Your task to perform on an android device: turn on the 12-hour format for clock Image 0: 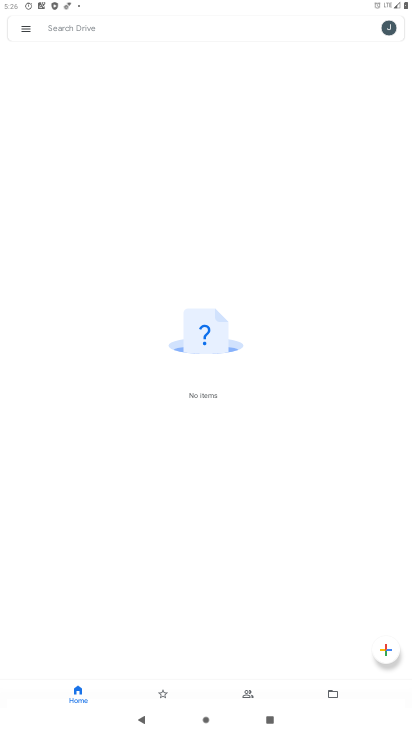
Step 0: press home button
Your task to perform on an android device: turn on the 12-hour format for clock Image 1: 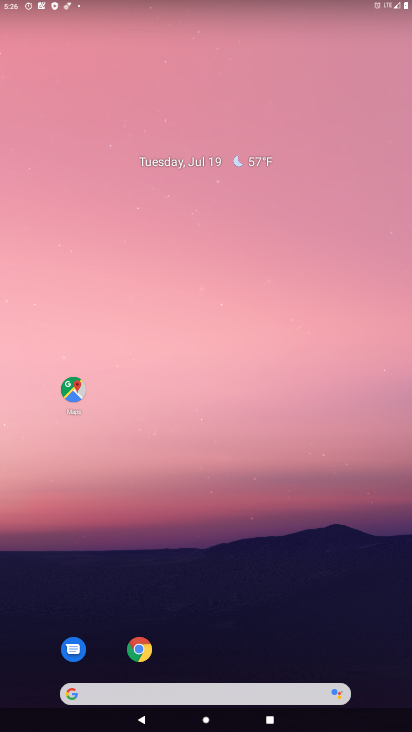
Step 1: drag from (198, 632) to (227, 127)
Your task to perform on an android device: turn on the 12-hour format for clock Image 2: 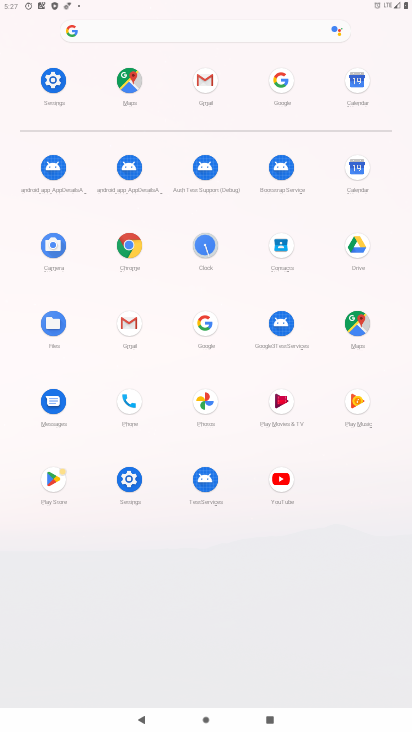
Step 2: click (211, 247)
Your task to perform on an android device: turn on the 12-hour format for clock Image 3: 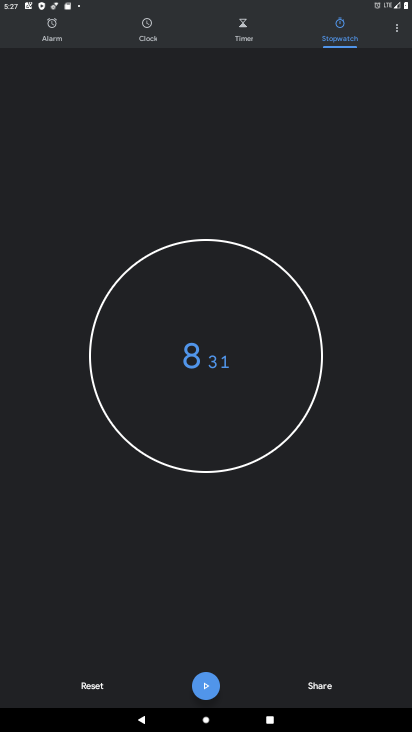
Step 3: click (397, 30)
Your task to perform on an android device: turn on the 12-hour format for clock Image 4: 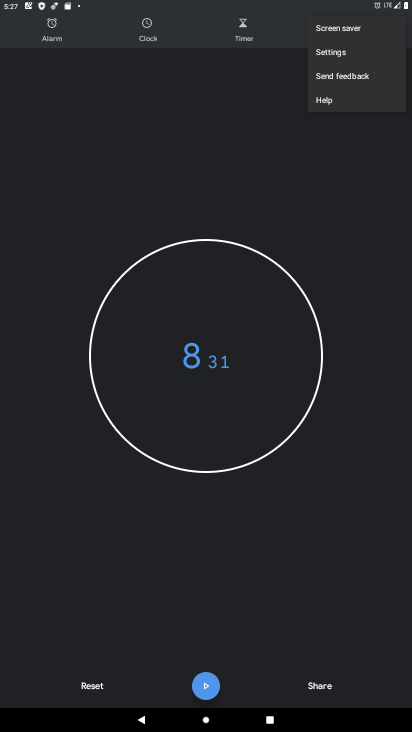
Step 4: click (339, 59)
Your task to perform on an android device: turn on the 12-hour format for clock Image 5: 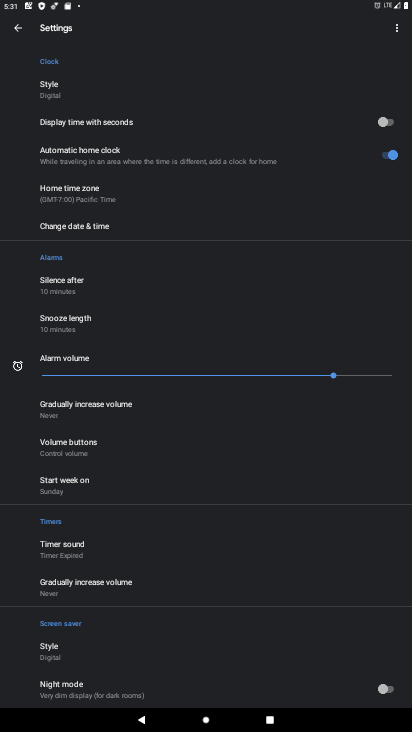
Step 5: press home button
Your task to perform on an android device: turn on the 12-hour format for clock Image 6: 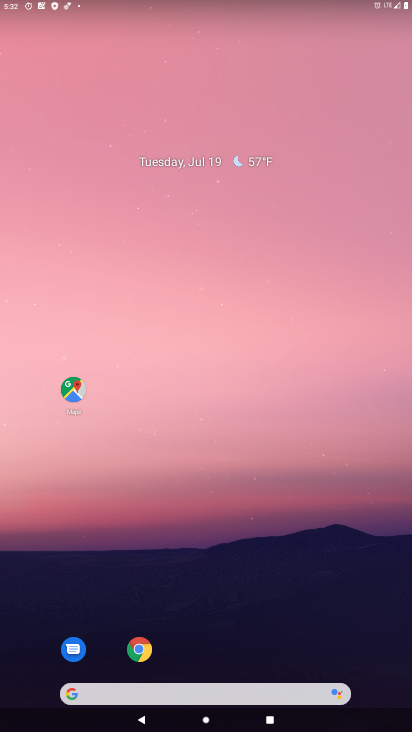
Step 6: drag from (200, 639) to (213, 92)
Your task to perform on an android device: turn on the 12-hour format for clock Image 7: 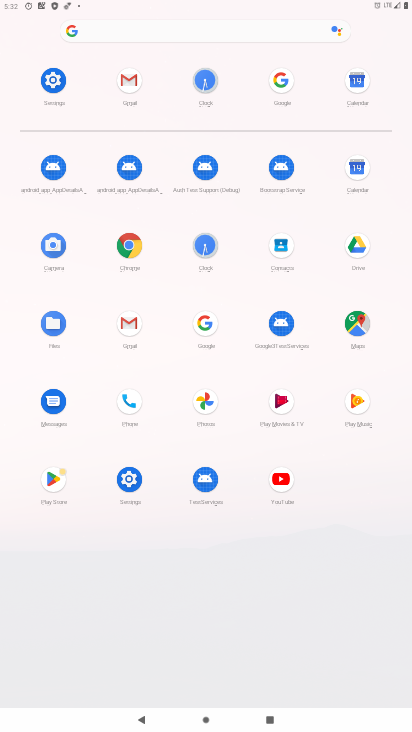
Step 7: click (202, 95)
Your task to perform on an android device: turn on the 12-hour format for clock Image 8: 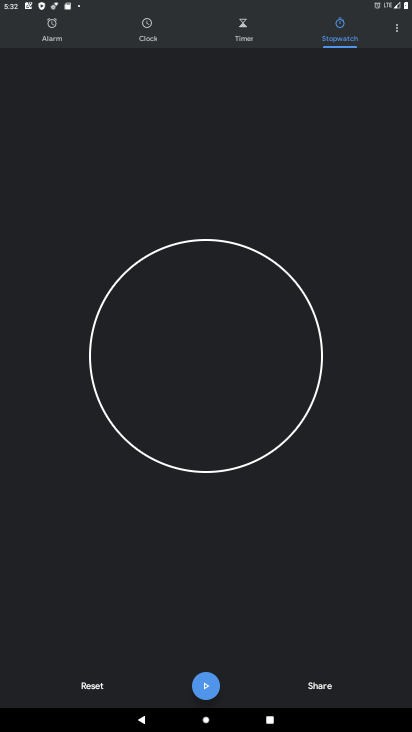
Step 8: click (396, 33)
Your task to perform on an android device: turn on the 12-hour format for clock Image 9: 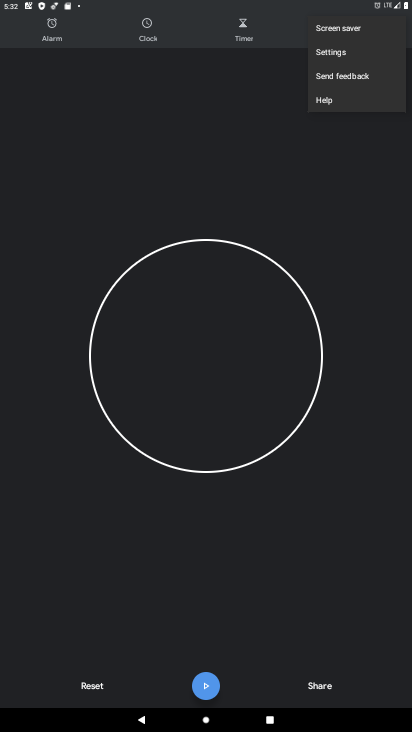
Step 9: click (335, 47)
Your task to perform on an android device: turn on the 12-hour format for clock Image 10: 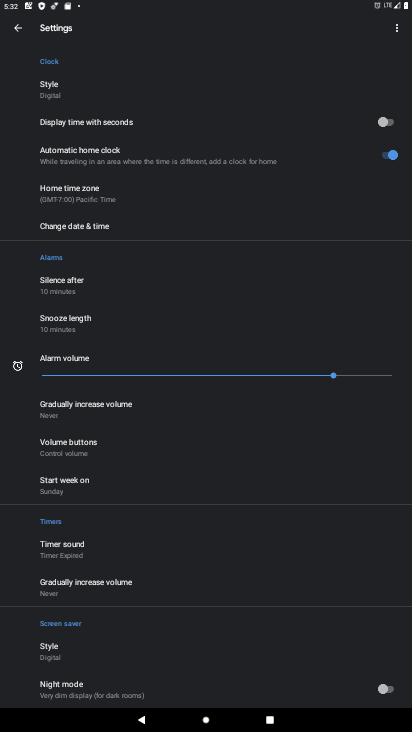
Step 10: click (77, 221)
Your task to perform on an android device: turn on the 12-hour format for clock Image 11: 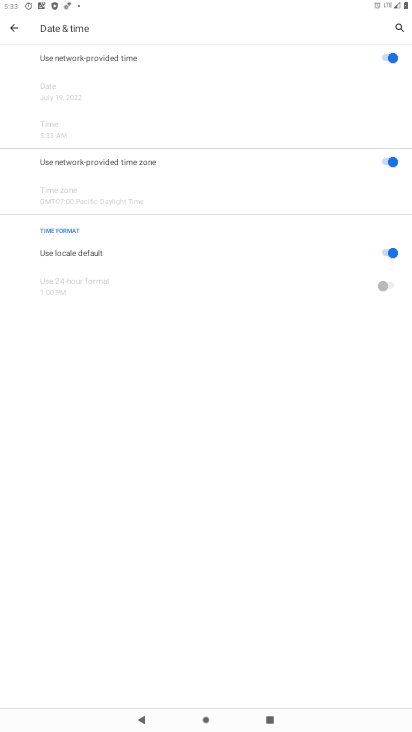
Step 11: task complete